Your task to perform on an android device: toggle show notifications on the lock screen Image 0: 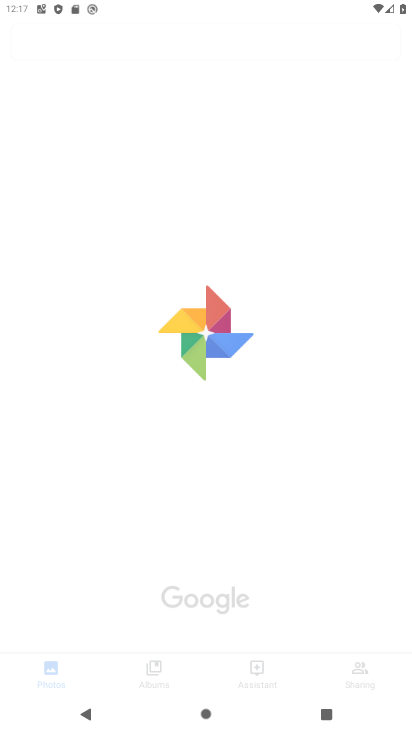
Step 0: press home button
Your task to perform on an android device: toggle show notifications on the lock screen Image 1: 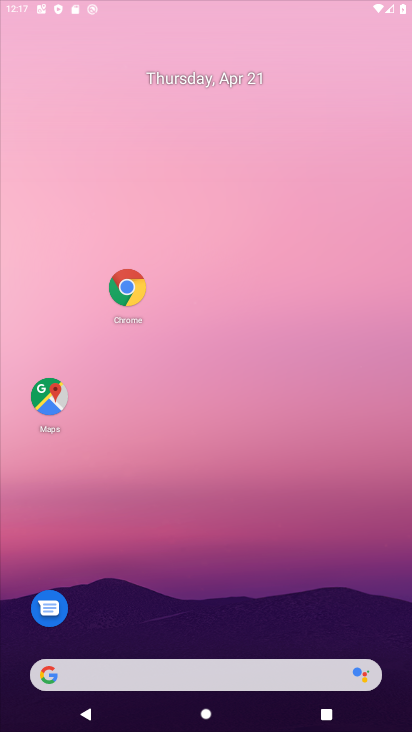
Step 1: press home button
Your task to perform on an android device: toggle show notifications on the lock screen Image 2: 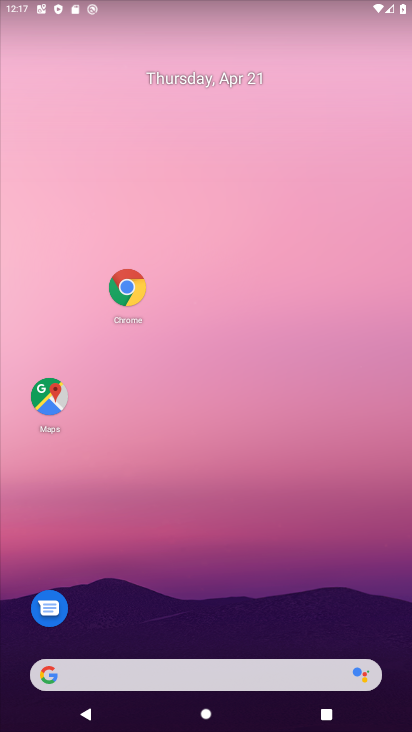
Step 2: drag from (195, 566) to (174, 37)
Your task to perform on an android device: toggle show notifications on the lock screen Image 3: 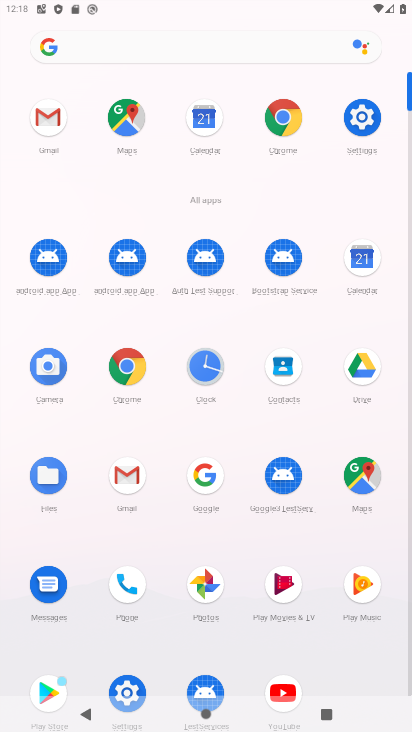
Step 3: click (370, 126)
Your task to perform on an android device: toggle show notifications on the lock screen Image 4: 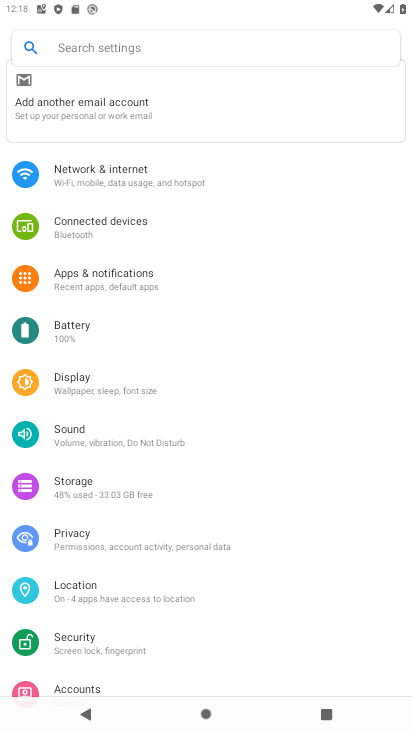
Step 4: click (74, 279)
Your task to perform on an android device: toggle show notifications on the lock screen Image 5: 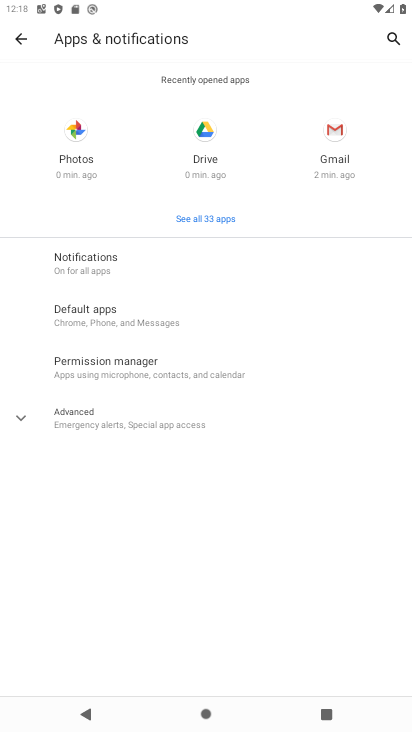
Step 5: click (77, 270)
Your task to perform on an android device: toggle show notifications on the lock screen Image 6: 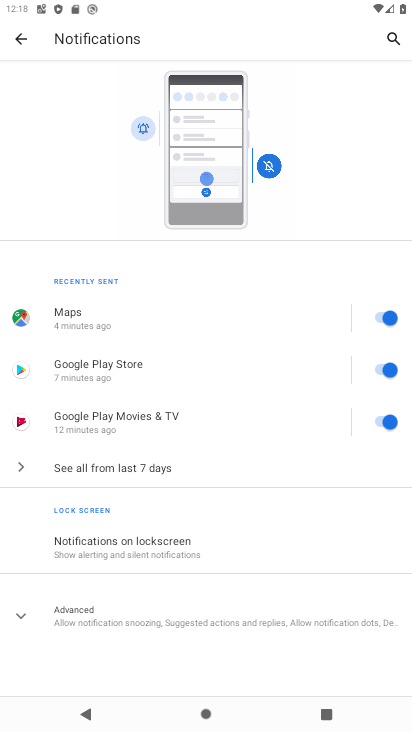
Step 6: click (120, 541)
Your task to perform on an android device: toggle show notifications on the lock screen Image 7: 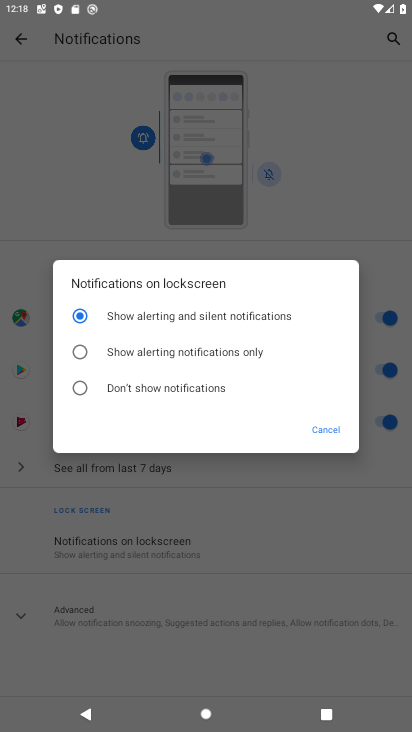
Step 7: click (118, 353)
Your task to perform on an android device: toggle show notifications on the lock screen Image 8: 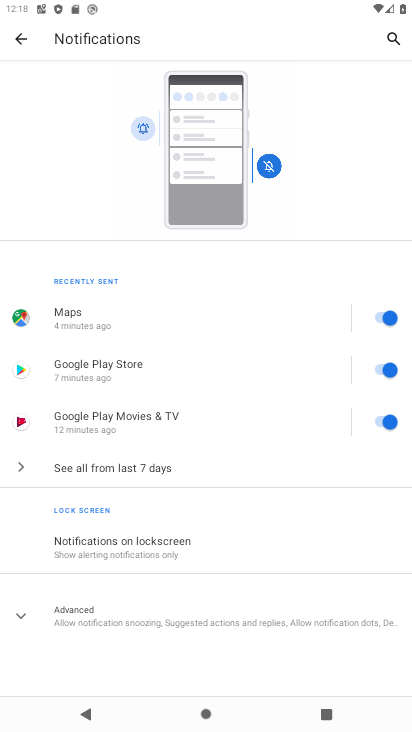
Step 8: task complete